Your task to perform on an android device: Go to Google maps Image 0: 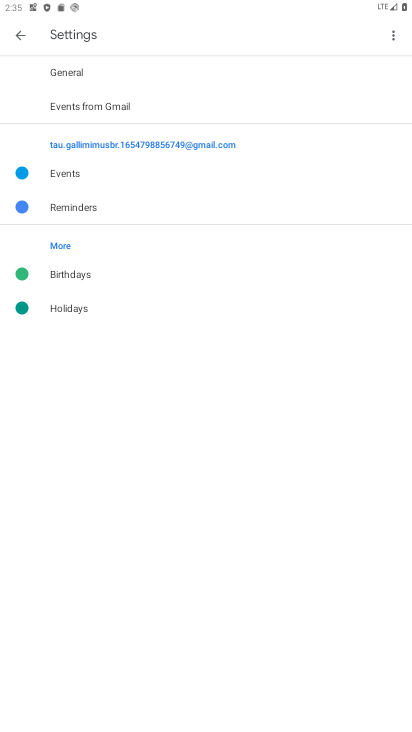
Step 0: press home button
Your task to perform on an android device: Go to Google maps Image 1: 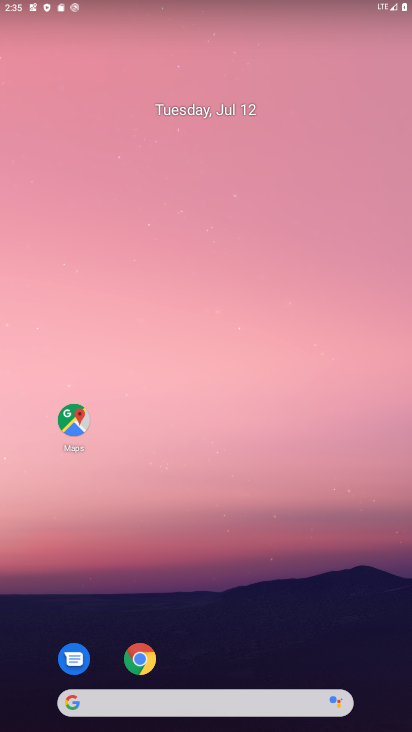
Step 1: drag from (226, 727) to (211, 107)
Your task to perform on an android device: Go to Google maps Image 2: 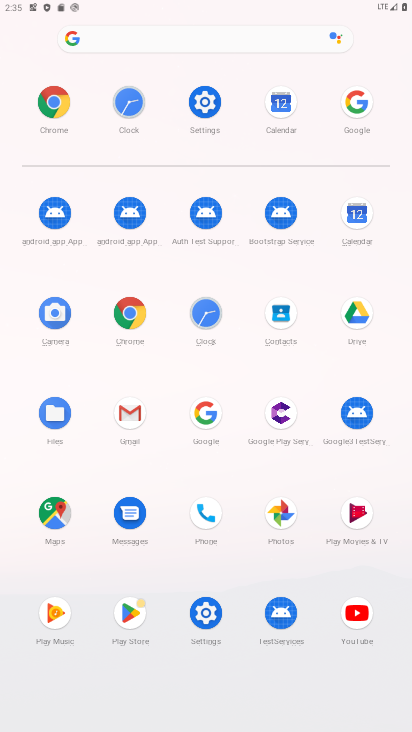
Step 2: click (55, 516)
Your task to perform on an android device: Go to Google maps Image 3: 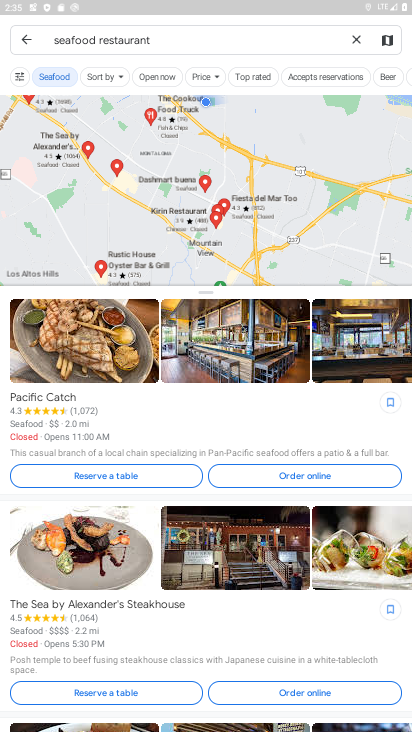
Step 3: task complete